Your task to perform on an android device: Open CNN.com Image 0: 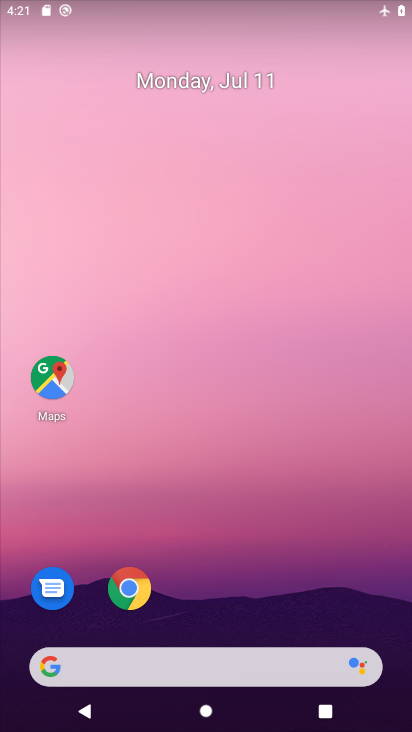
Step 0: drag from (359, 610) to (358, 192)
Your task to perform on an android device: Open CNN.com Image 1: 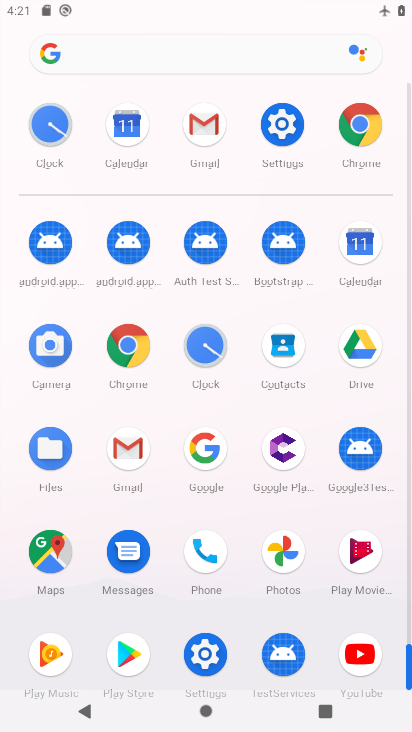
Step 1: click (132, 336)
Your task to perform on an android device: Open CNN.com Image 2: 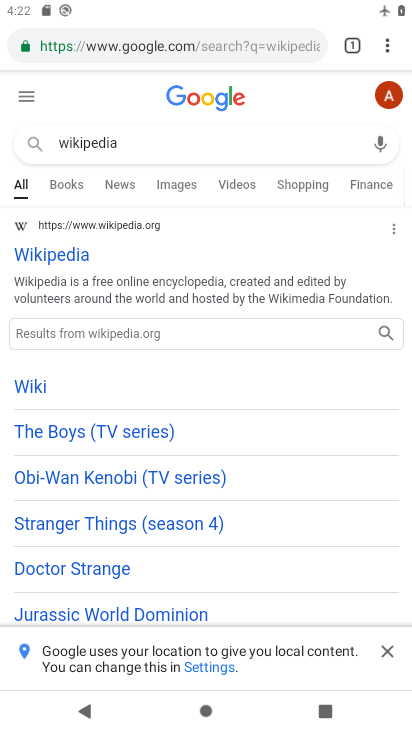
Step 2: click (223, 46)
Your task to perform on an android device: Open CNN.com Image 3: 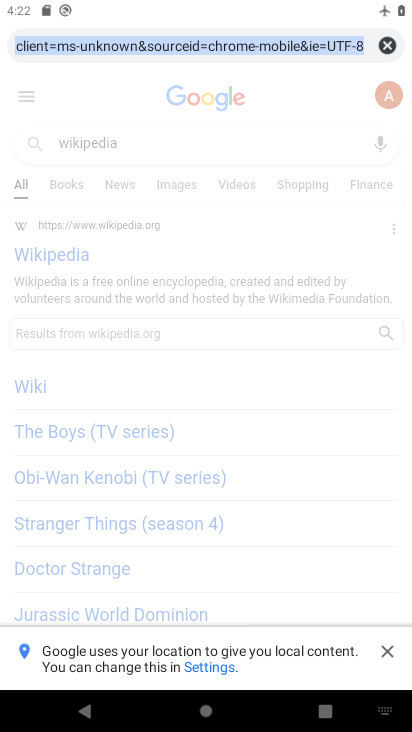
Step 3: type "cnn.com"
Your task to perform on an android device: Open CNN.com Image 4: 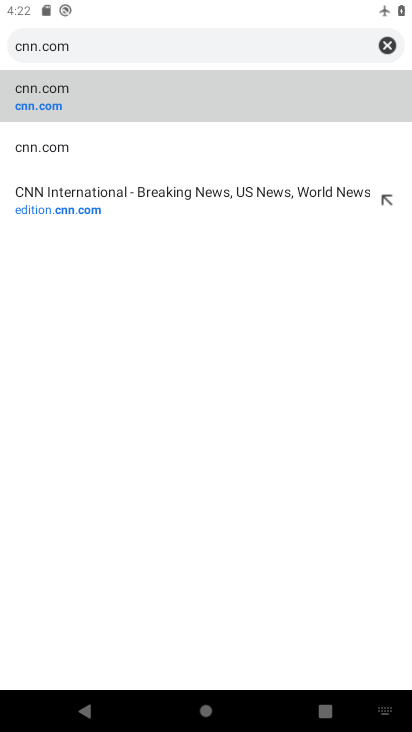
Step 4: click (105, 102)
Your task to perform on an android device: Open CNN.com Image 5: 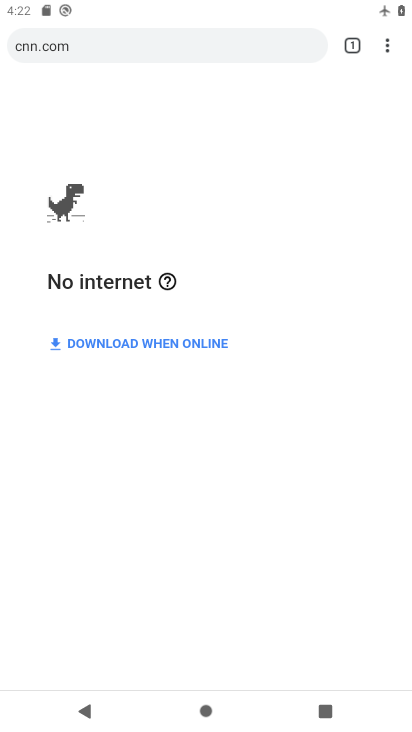
Step 5: task complete